Your task to perform on an android device: change text size in settings app Image 0: 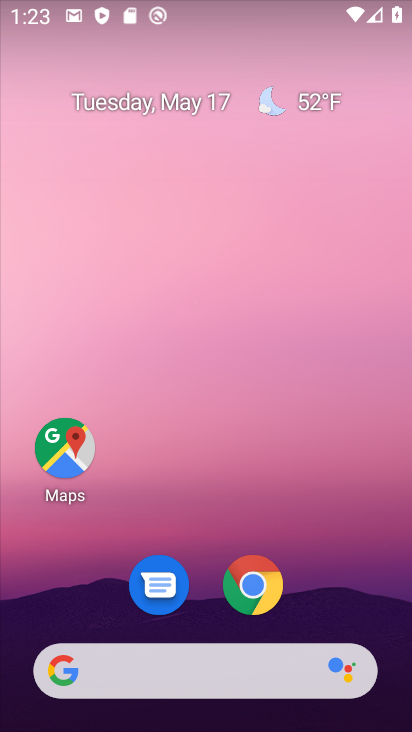
Step 0: drag from (307, 504) to (326, 50)
Your task to perform on an android device: change text size in settings app Image 1: 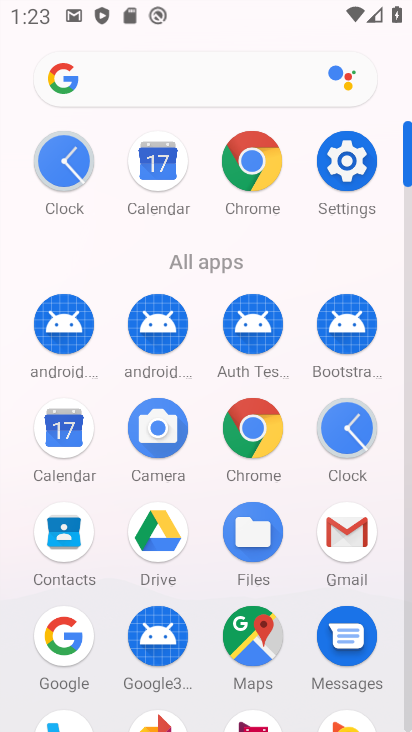
Step 1: click (347, 153)
Your task to perform on an android device: change text size in settings app Image 2: 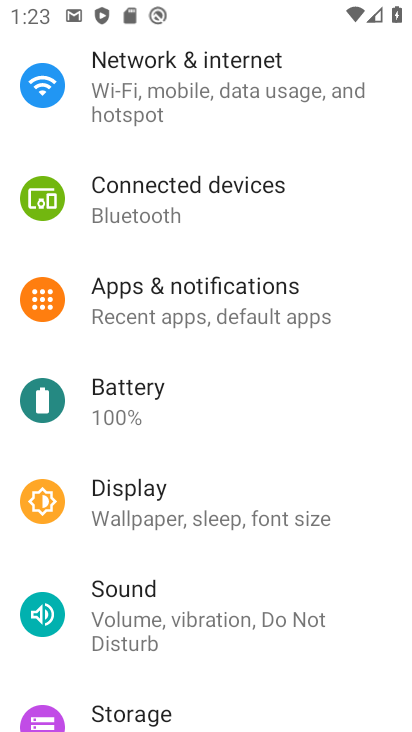
Step 2: click (237, 492)
Your task to perform on an android device: change text size in settings app Image 3: 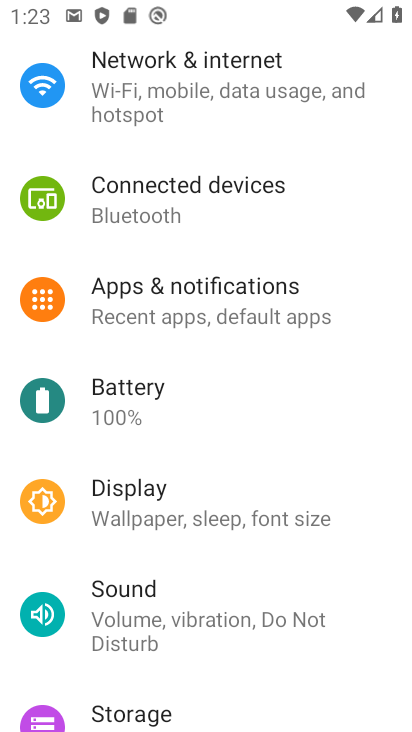
Step 3: click (239, 499)
Your task to perform on an android device: change text size in settings app Image 4: 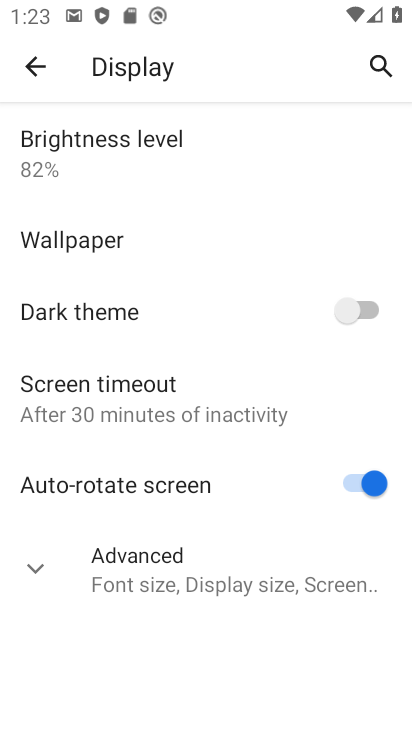
Step 4: click (38, 555)
Your task to perform on an android device: change text size in settings app Image 5: 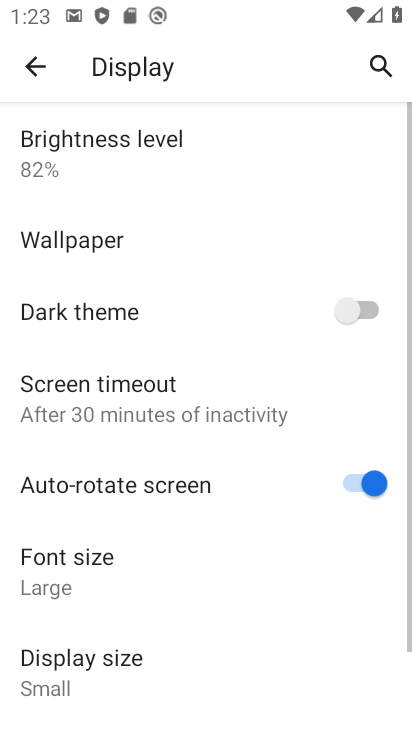
Step 5: click (66, 569)
Your task to perform on an android device: change text size in settings app Image 6: 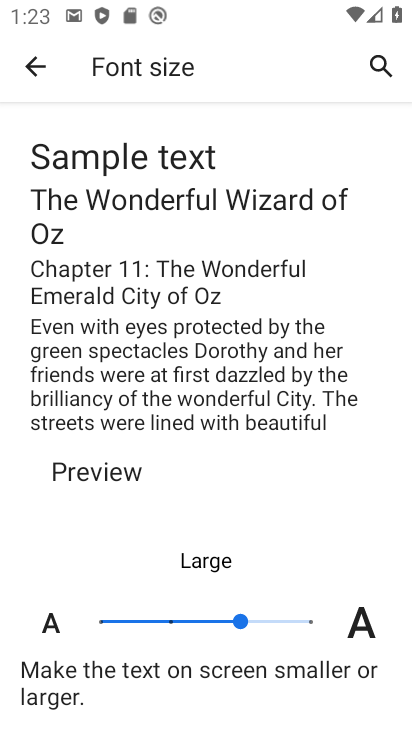
Step 6: click (173, 615)
Your task to perform on an android device: change text size in settings app Image 7: 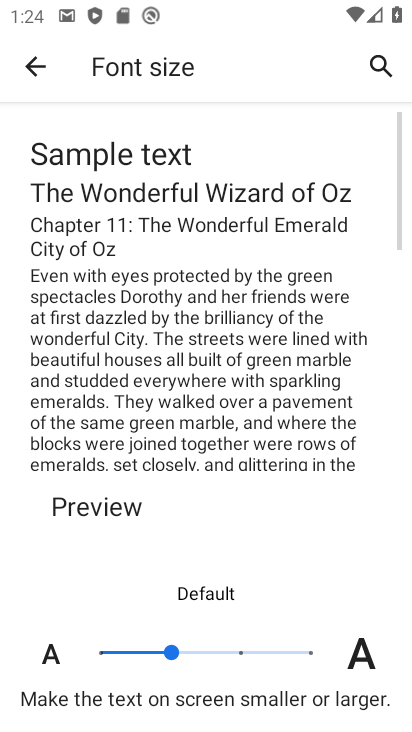
Step 7: click (37, 65)
Your task to perform on an android device: change text size in settings app Image 8: 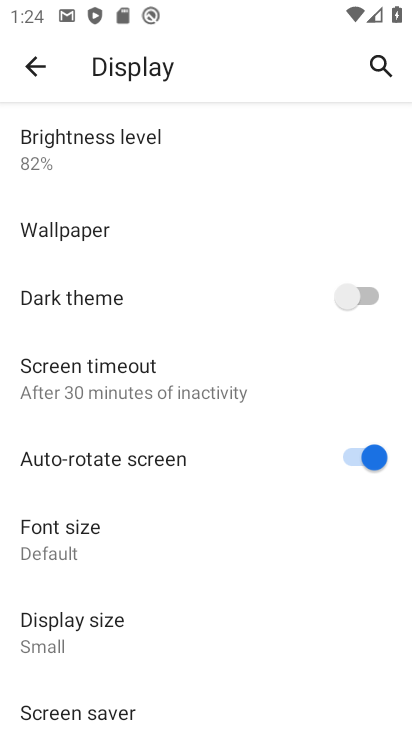
Step 8: task complete